Your task to perform on an android device: change the clock display to show seconds Image 0: 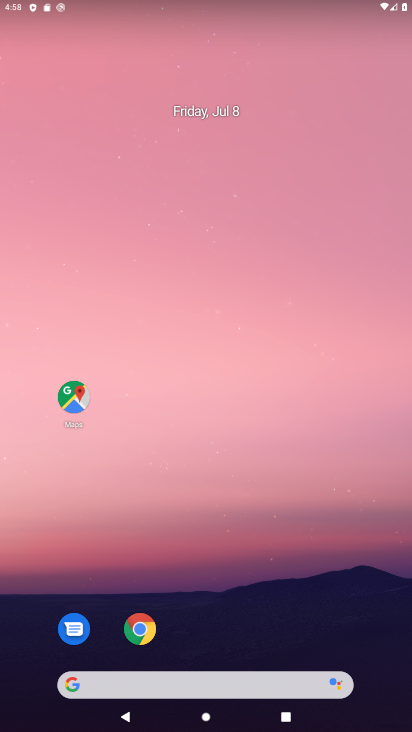
Step 0: press home button
Your task to perform on an android device: change the clock display to show seconds Image 1: 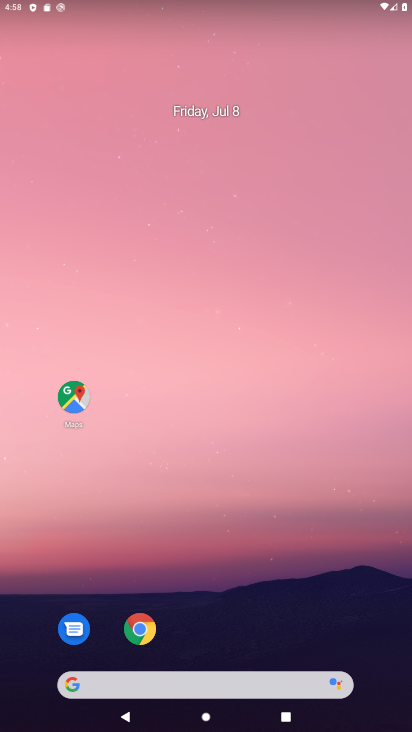
Step 1: drag from (271, 638) to (352, 9)
Your task to perform on an android device: change the clock display to show seconds Image 2: 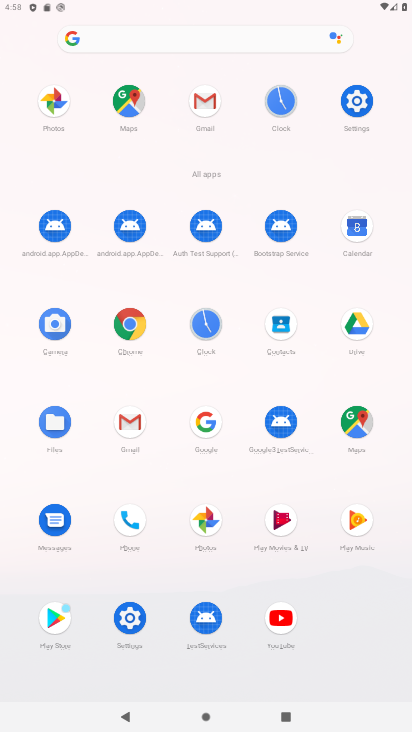
Step 2: click (286, 109)
Your task to perform on an android device: change the clock display to show seconds Image 3: 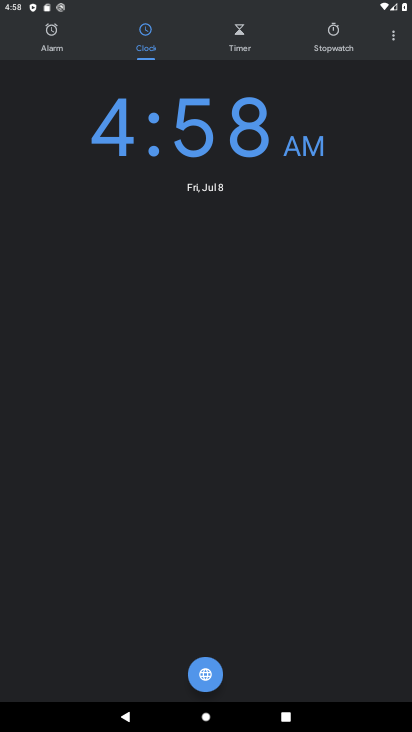
Step 3: click (390, 41)
Your task to perform on an android device: change the clock display to show seconds Image 4: 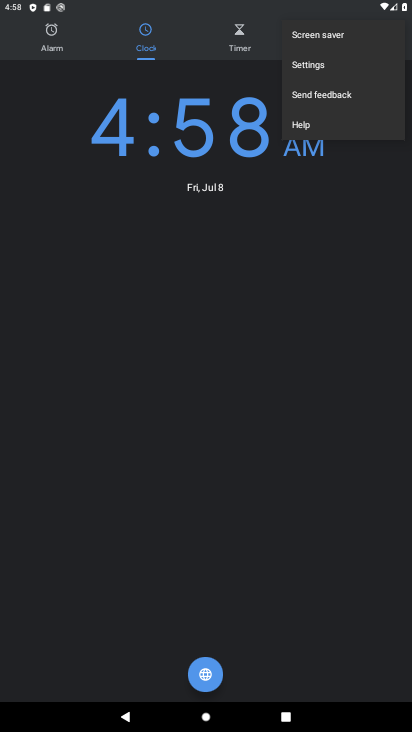
Step 4: click (302, 69)
Your task to perform on an android device: change the clock display to show seconds Image 5: 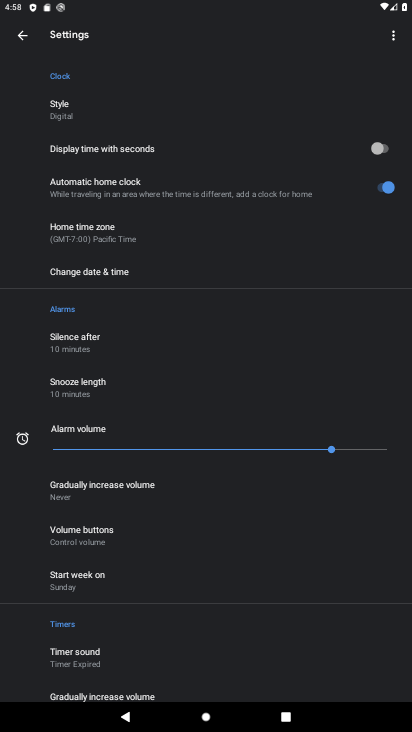
Step 5: click (376, 153)
Your task to perform on an android device: change the clock display to show seconds Image 6: 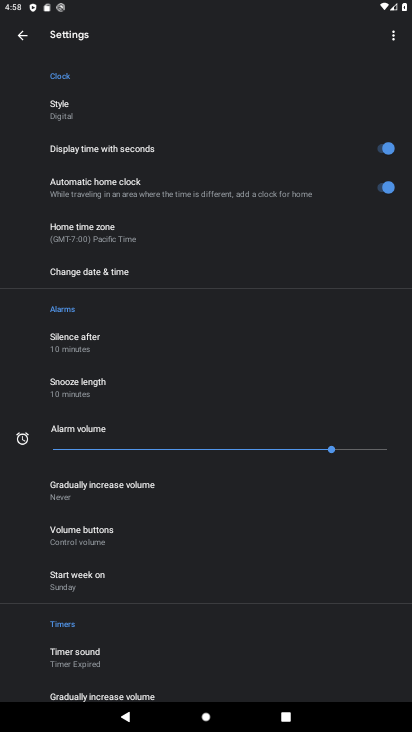
Step 6: task complete